Your task to perform on an android device: allow notifications from all sites in the chrome app Image 0: 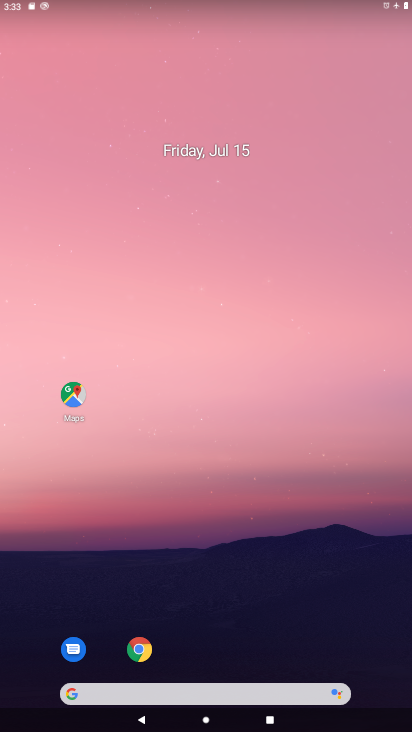
Step 0: click (138, 648)
Your task to perform on an android device: allow notifications from all sites in the chrome app Image 1: 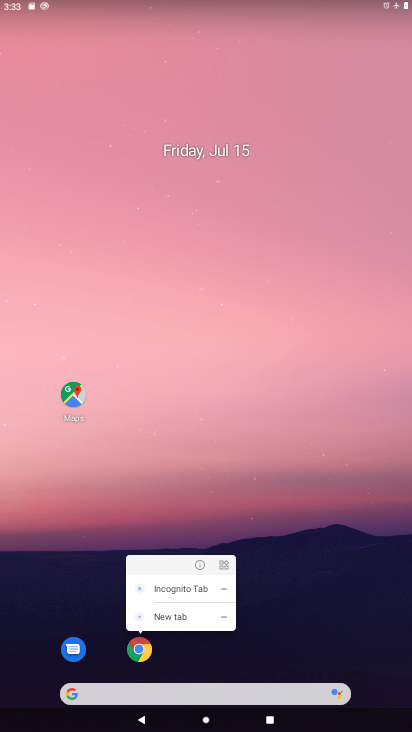
Step 1: click (138, 648)
Your task to perform on an android device: allow notifications from all sites in the chrome app Image 2: 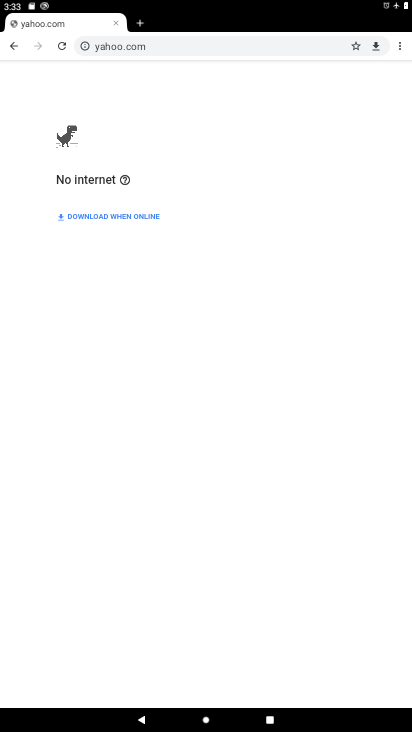
Step 2: click (399, 47)
Your task to perform on an android device: allow notifications from all sites in the chrome app Image 3: 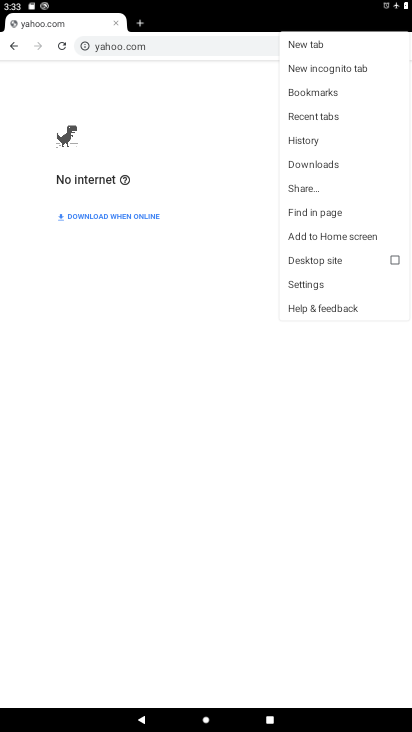
Step 3: click (300, 285)
Your task to perform on an android device: allow notifications from all sites in the chrome app Image 4: 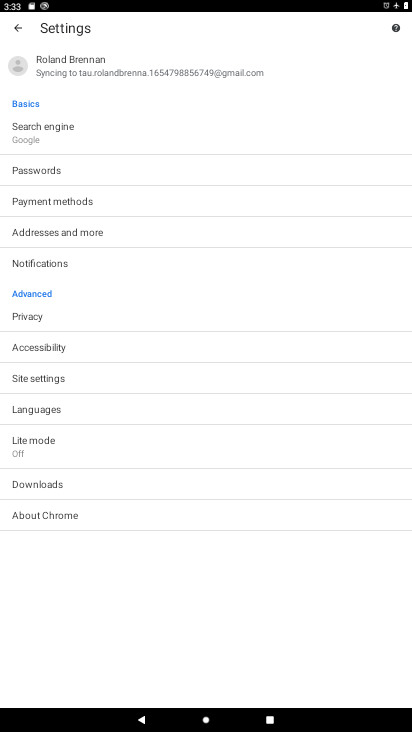
Step 4: click (43, 380)
Your task to perform on an android device: allow notifications from all sites in the chrome app Image 5: 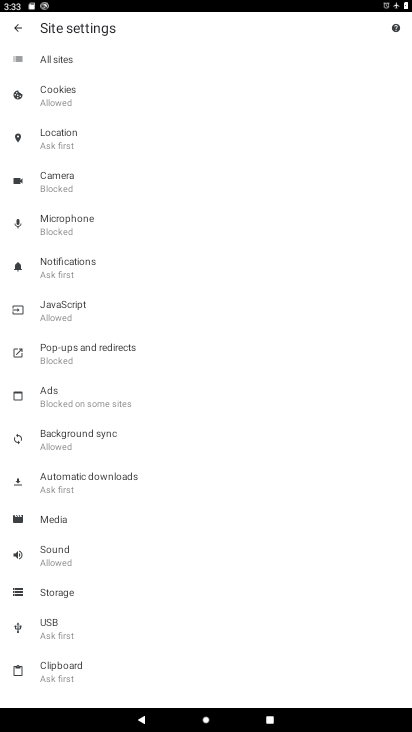
Step 5: click (64, 262)
Your task to perform on an android device: allow notifications from all sites in the chrome app Image 6: 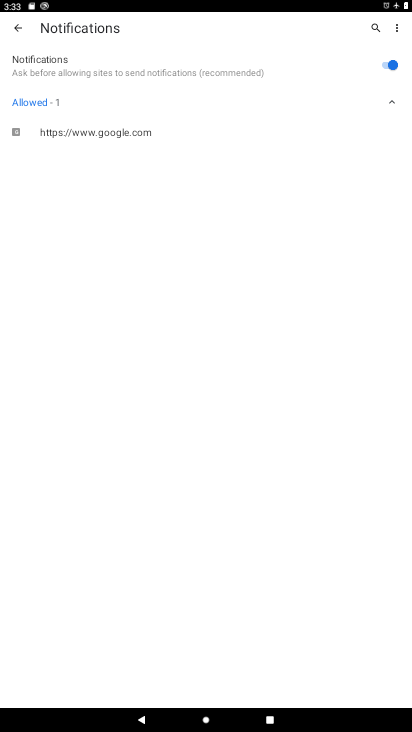
Step 6: task complete